Your task to perform on an android device: Show me the alarms in the clock app Image 0: 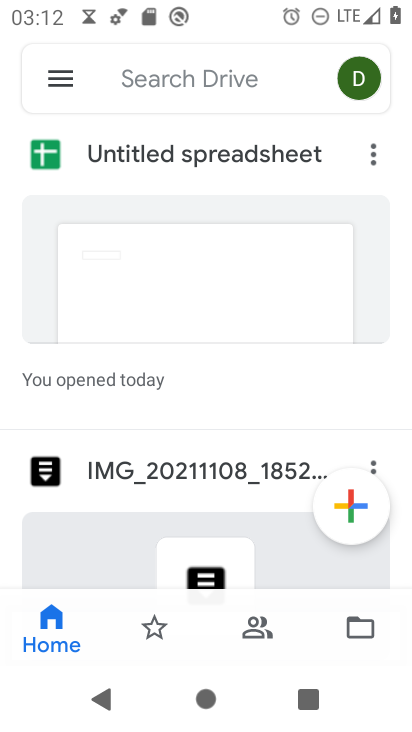
Step 0: press home button
Your task to perform on an android device: Show me the alarms in the clock app Image 1: 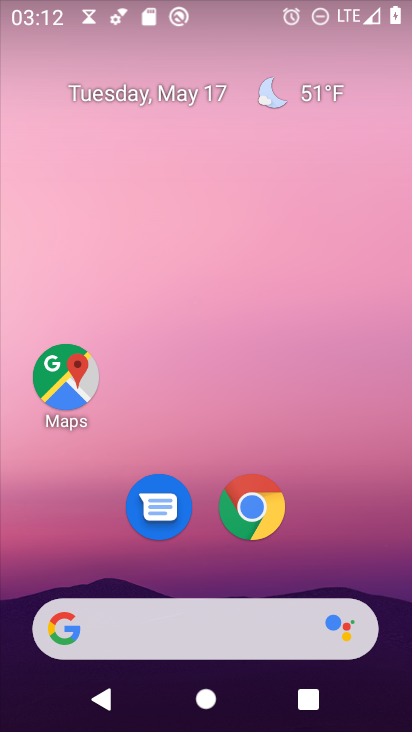
Step 1: drag from (198, 585) to (233, 0)
Your task to perform on an android device: Show me the alarms in the clock app Image 2: 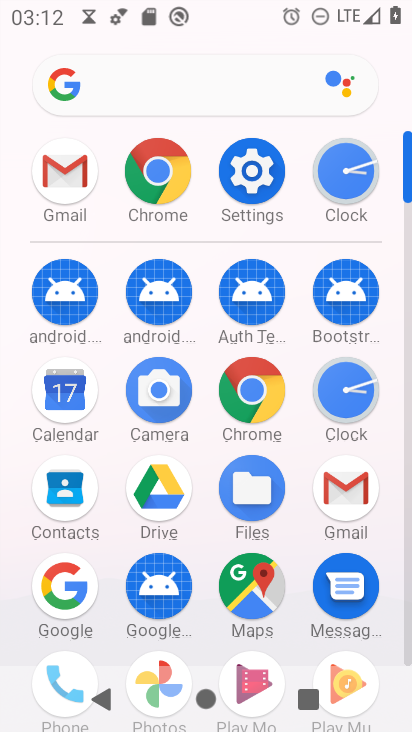
Step 2: click (346, 392)
Your task to perform on an android device: Show me the alarms in the clock app Image 3: 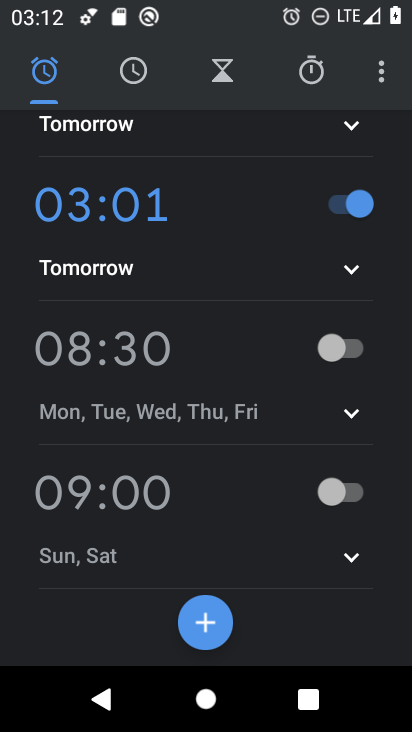
Step 3: task complete